Your task to perform on an android device: turn on the 24-hour format for clock Image 0: 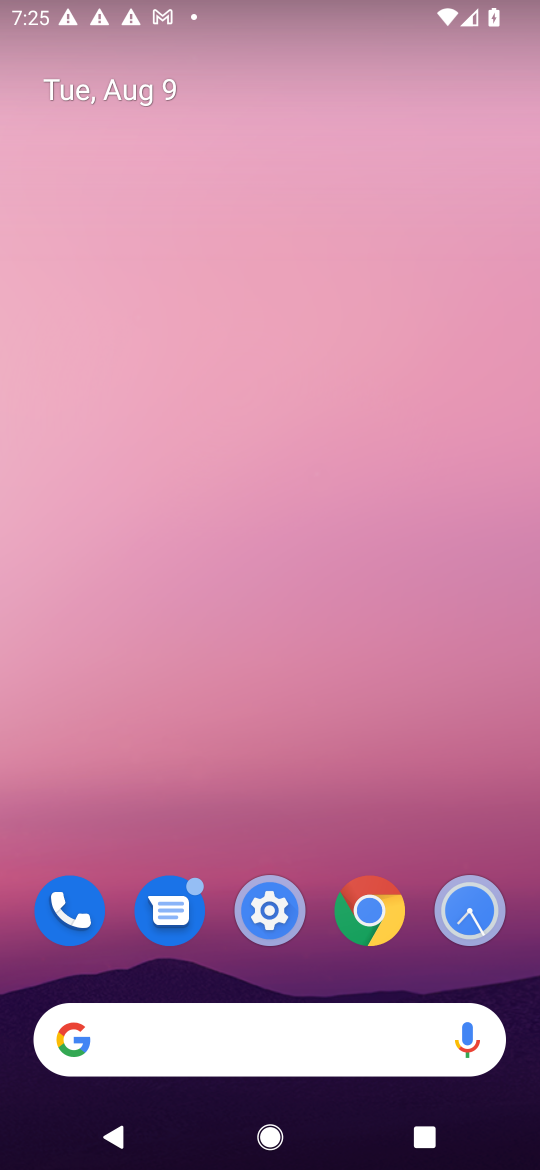
Step 0: drag from (244, 1060) to (234, 308)
Your task to perform on an android device: turn on the 24-hour format for clock Image 1: 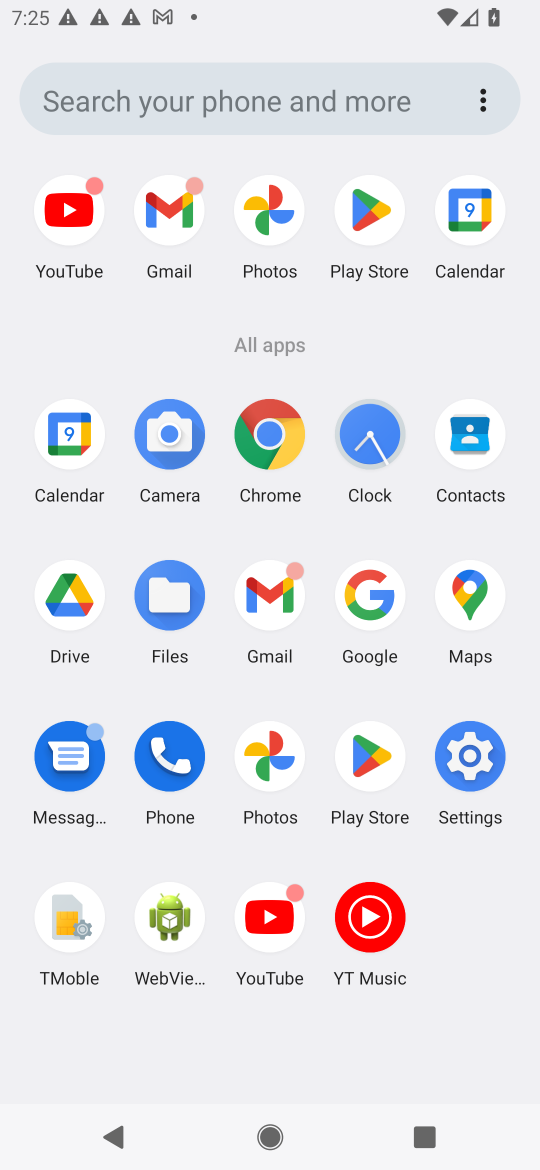
Step 1: click (383, 488)
Your task to perform on an android device: turn on the 24-hour format for clock Image 2: 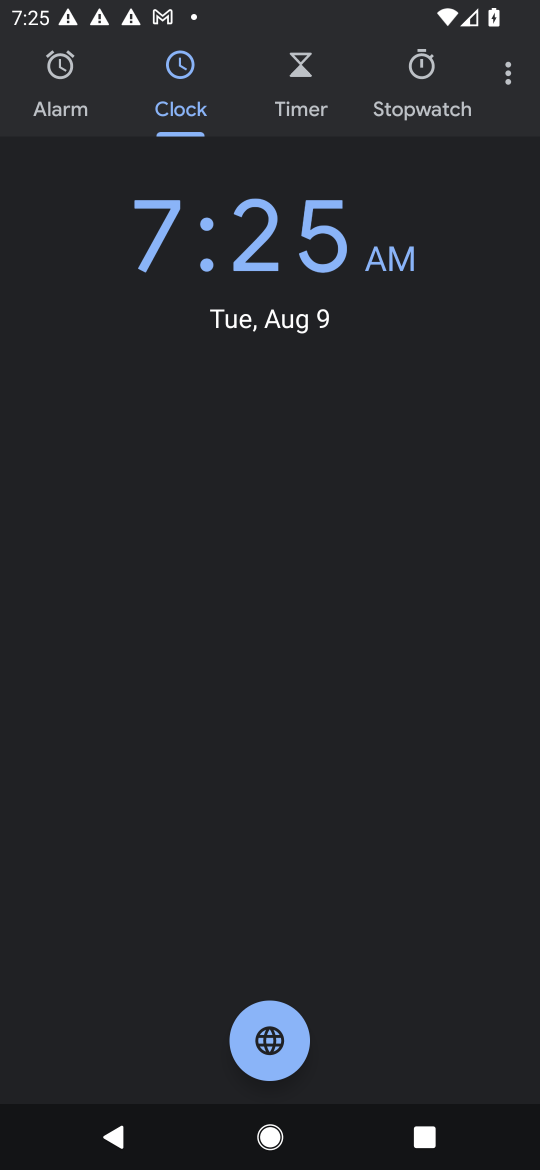
Step 2: click (522, 81)
Your task to perform on an android device: turn on the 24-hour format for clock Image 3: 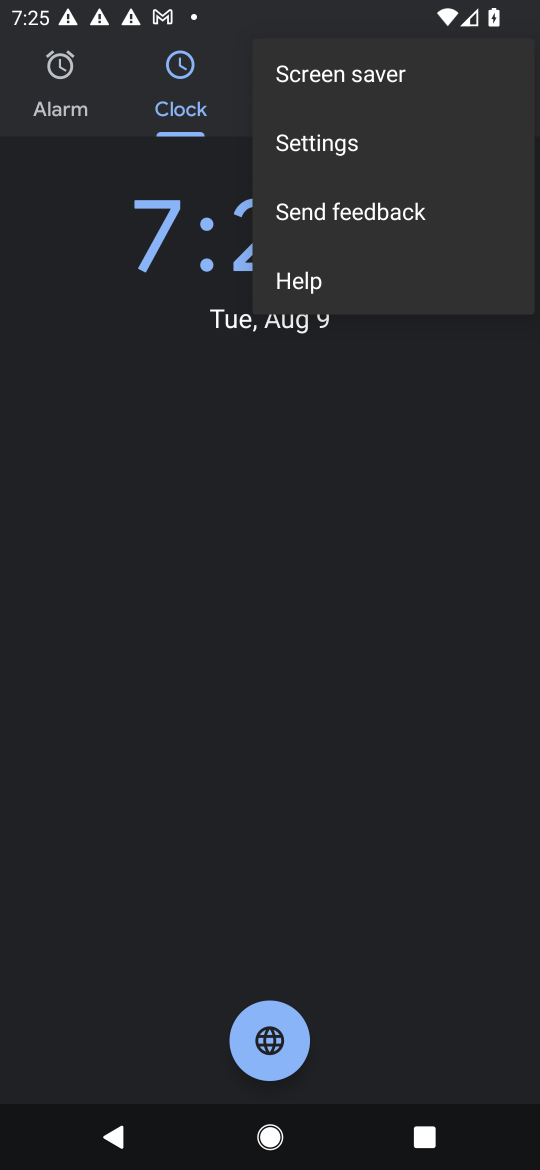
Step 3: click (341, 155)
Your task to perform on an android device: turn on the 24-hour format for clock Image 4: 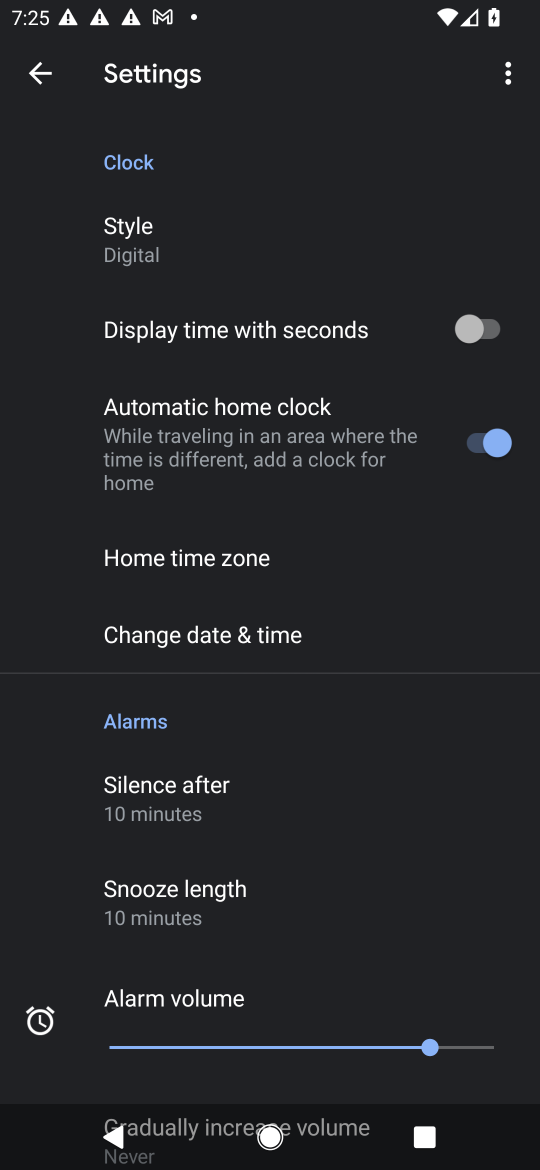
Step 4: click (253, 634)
Your task to perform on an android device: turn on the 24-hour format for clock Image 5: 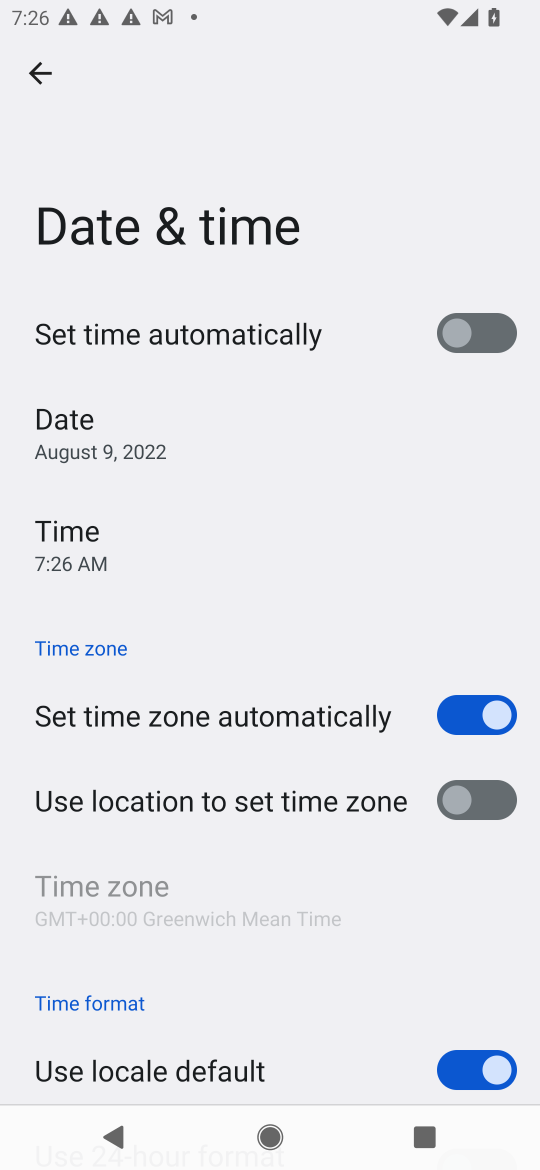
Step 5: task complete